Your task to perform on an android device: Open Google Image 0: 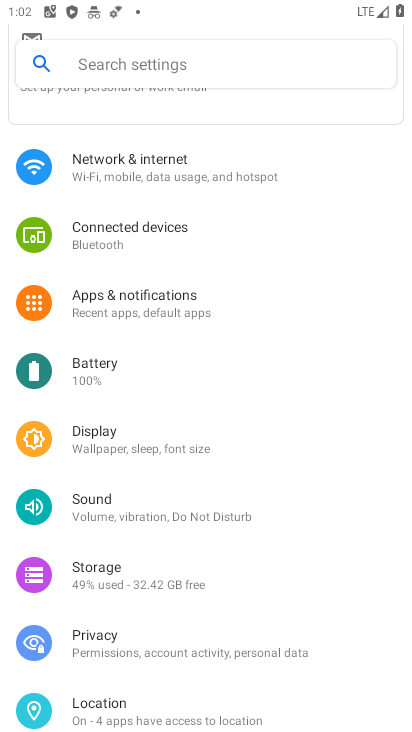
Step 0: press home button
Your task to perform on an android device: Open Google Image 1: 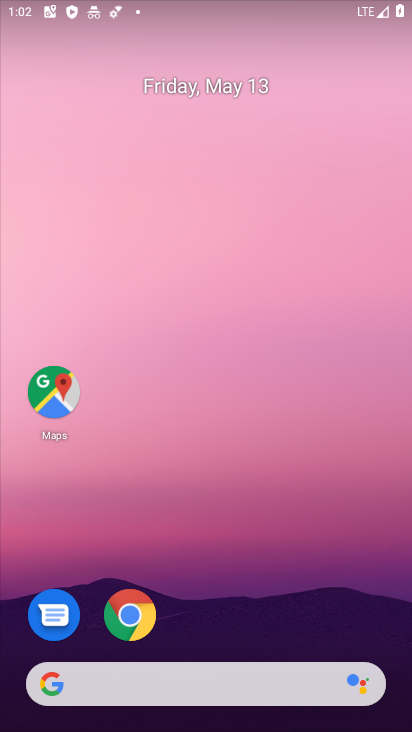
Step 1: drag from (158, 610) to (143, 244)
Your task to perform on an android device: Open Google Image 2: 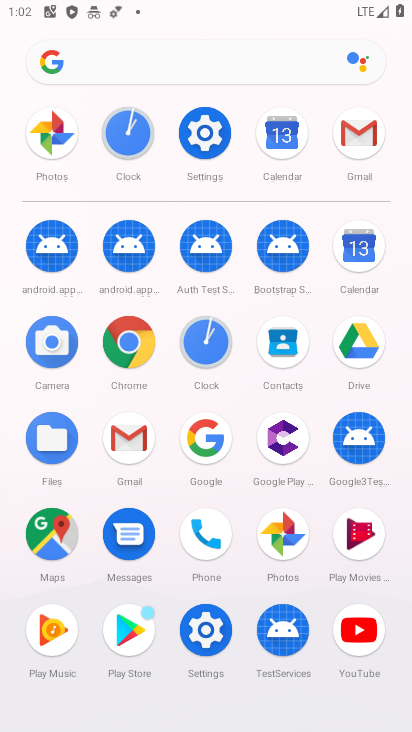
Step 2: click (189, 444)
Your task to perform on an android device: Open Google Image 3: 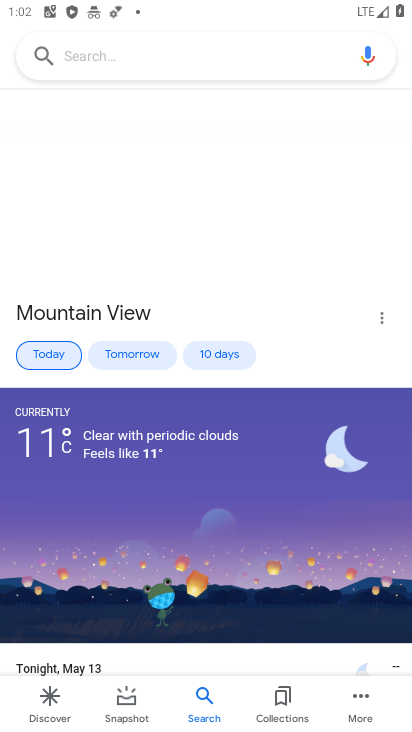
Step 3: task complete